Your task to perform on an android device: uninstall "Speedtest by Ookla" Image 0: 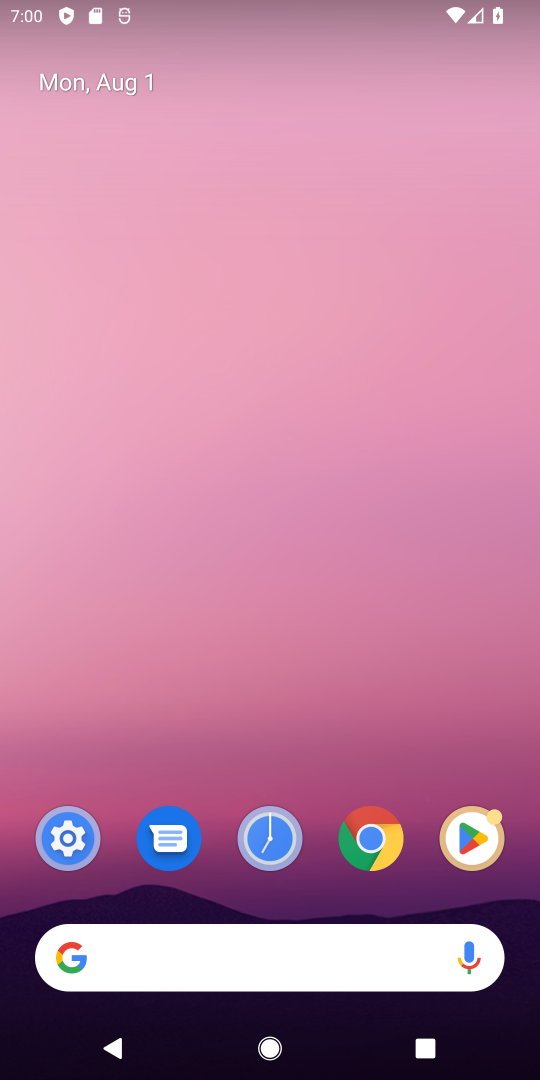
Step 0: click (480, 824)
Your task to perform on an android device: uninstall "Speedtest by Ookla" Image 1: 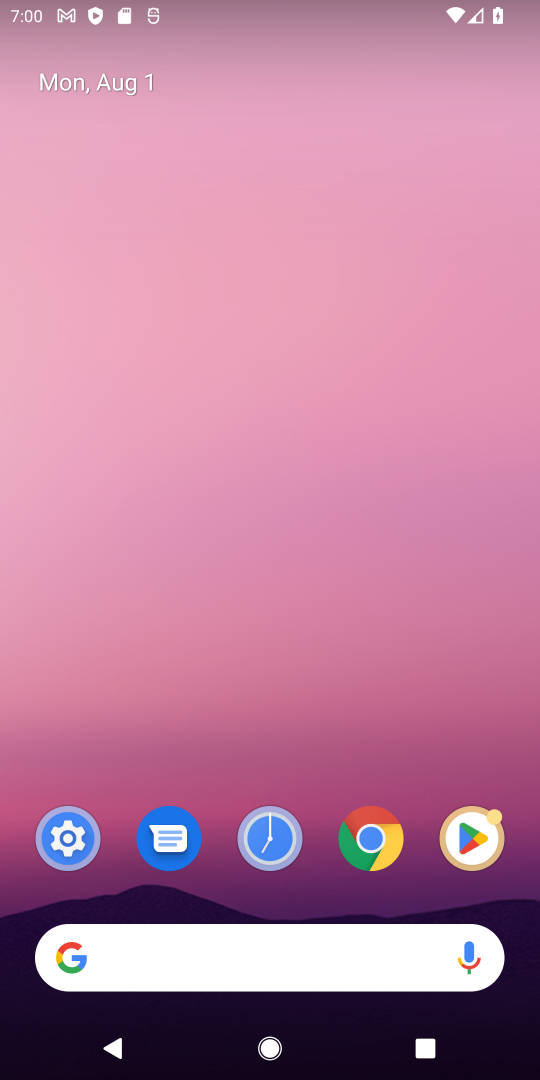
Step 1: click (482, 841)
Your task to perform on an android device: uninstall "Speedtest by Ookla" Image 2: 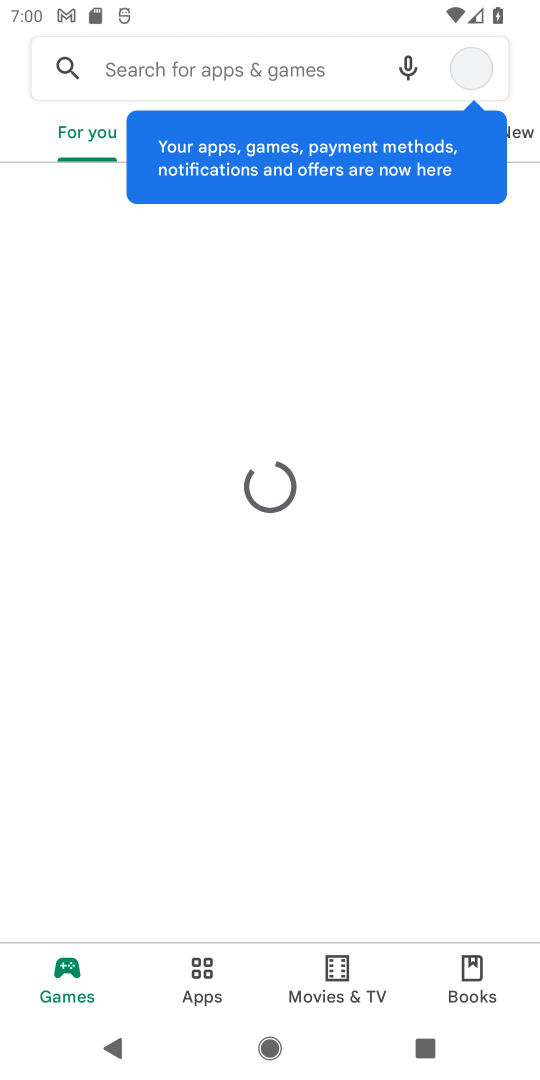
Step 2: click (297, 77)
Your task to perform on an android device: uninstall "Speedtest by Ookla" Image 3: 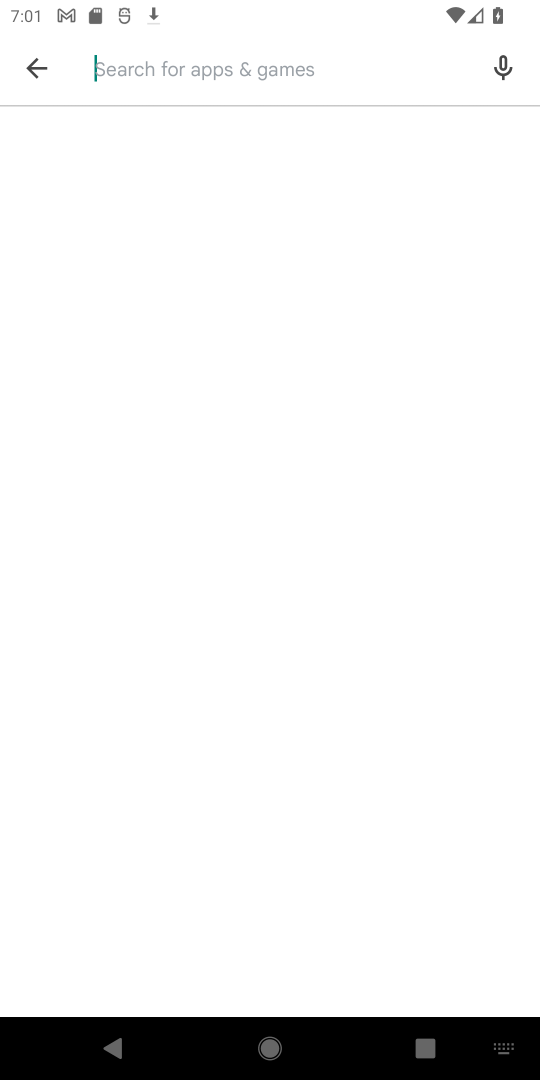
Step 3: type "speedtest by ookla"
Your task to perform on an android device: uninstall "Speedtest by Ookla" Image 4: 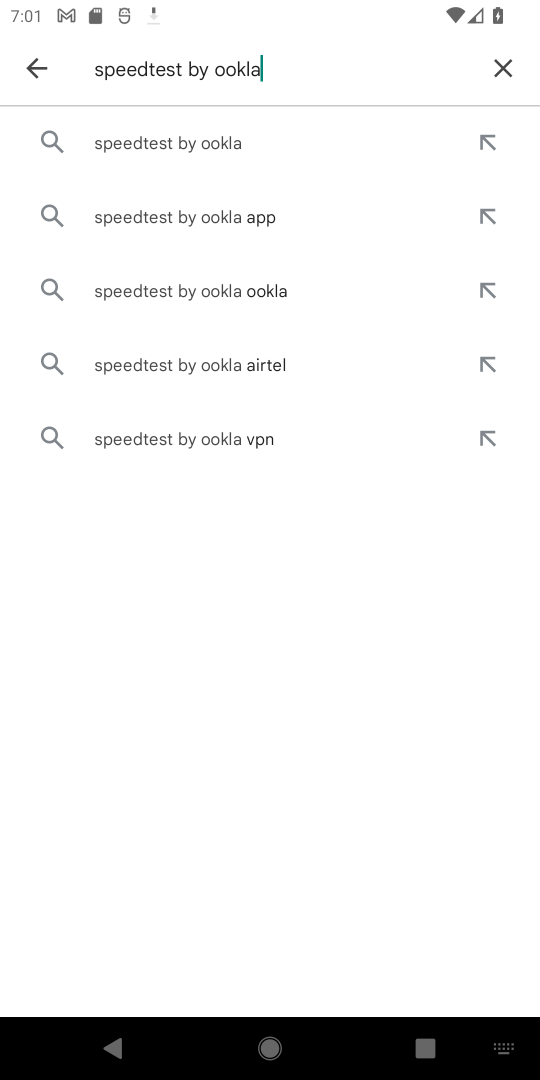
Step 4: click (423, 122)
Your task to perform on an android device: uninstall "Speedtest by Ookla" Image 5: 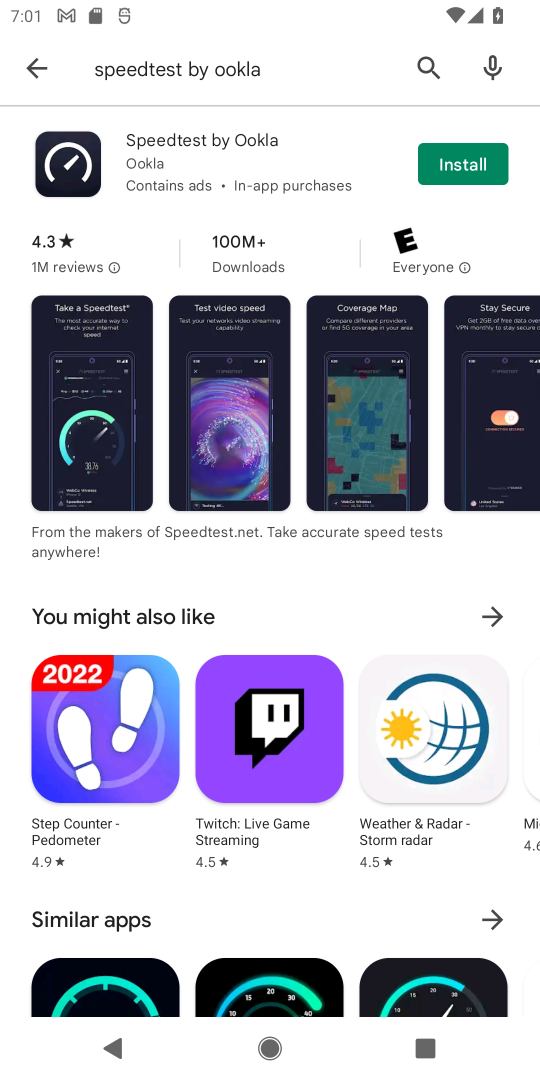
Step 5: click (209, 140)
Your task to perform on an android device: uninstall "Speedtest by Ookla" Image 6: 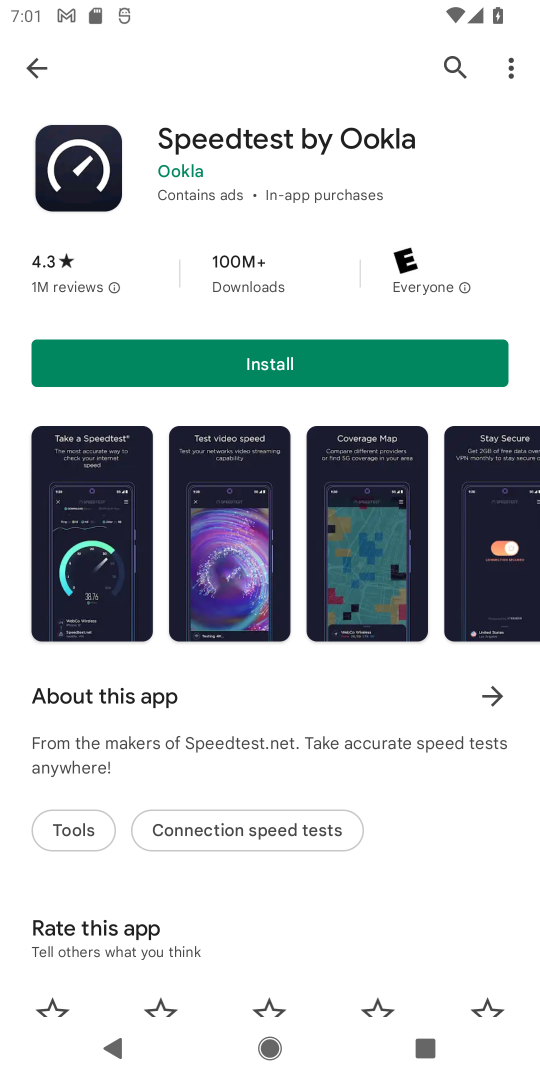
Step 6: task complete